Your task to perform on an android device: What's the weather? Image 0: 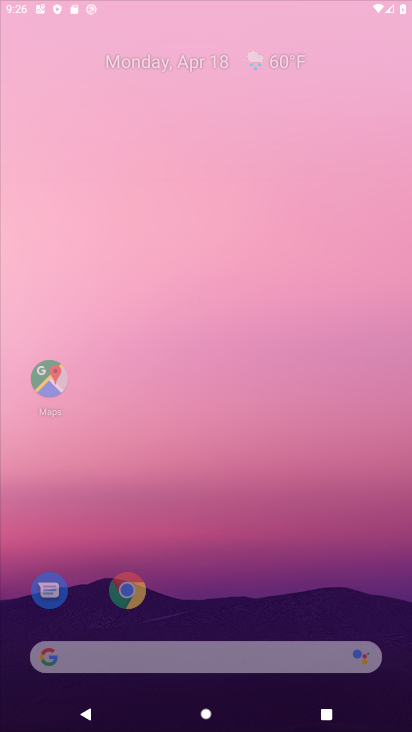
Step 0: drag from (288, 317) to (281, 174)
Your task to perform on an android device: What's the weather? Image 1: 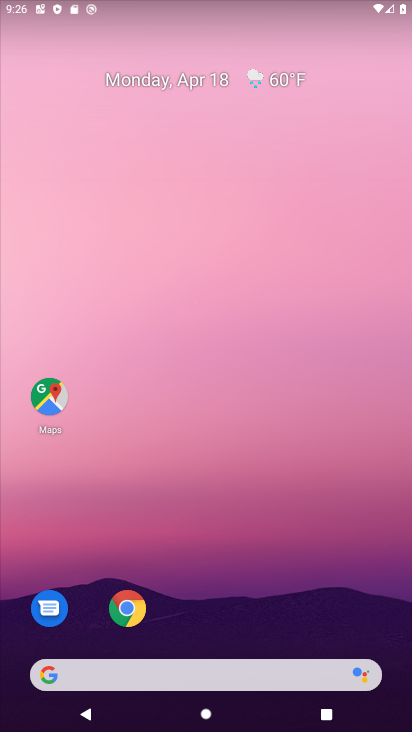
Step 1: drag from (191, 575) to (251, 0)
Your task to perform on an android device: What's the weather? Image 2: 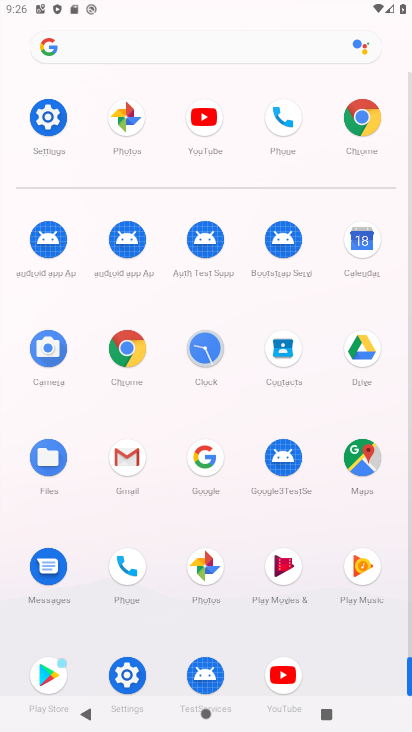
Step 2: click (120, 339)
Your task to perform on an android device: What's the weather? Image 3: 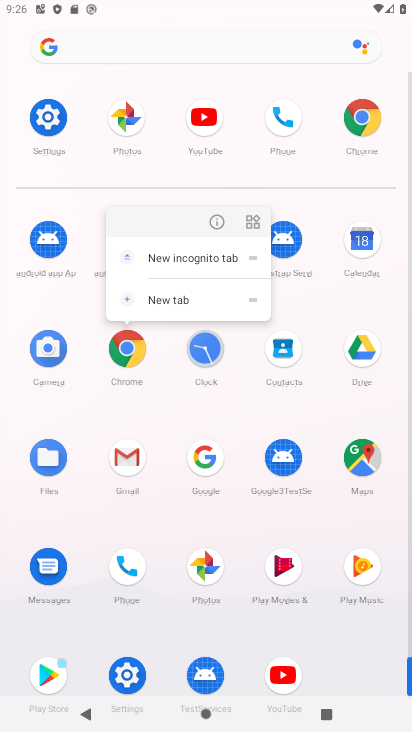
Step 3: click (214, 212)
Your task to perform on an android device: What's the weather? Image 4: 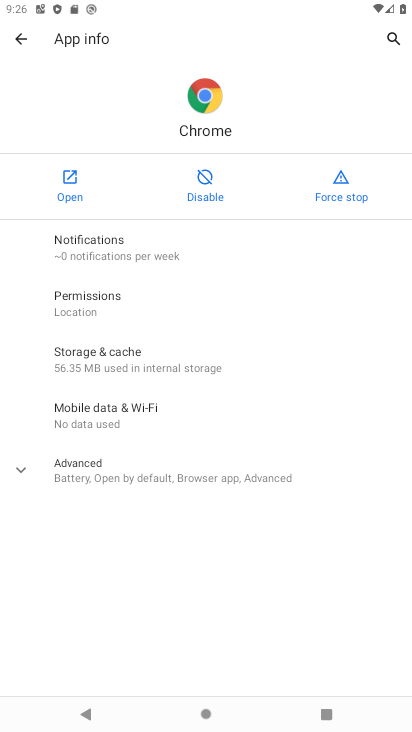
Step 4: click (83, 172)
Your task to perform on an android device: What's the weather? Image 5: 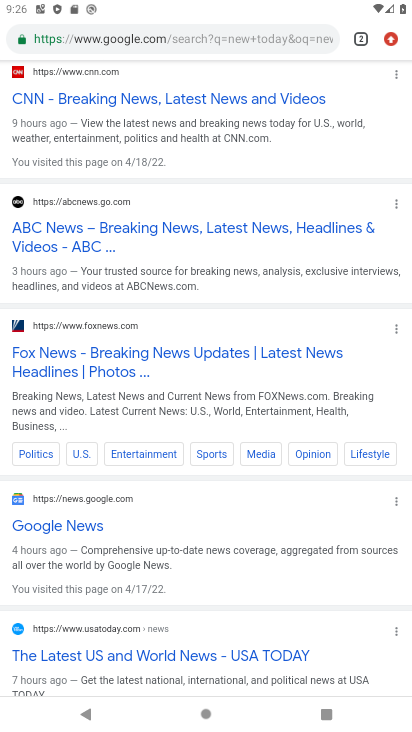
Step 5: drag from (167, 118) to (261, 480)
Your task to perform on an android device: What's the weather? Image 6: 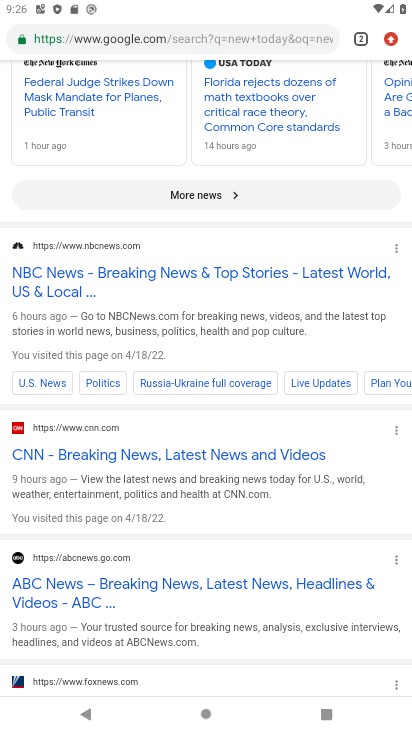
Step 6: click (147, 34)
Your task to perform on an android device: What's the weather? Image 7: 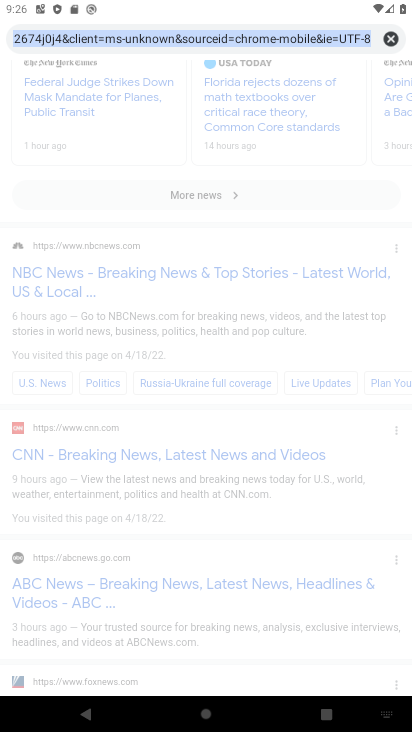
Step 7: click (392, 34)
Your task to perform on an android device: What's the weather? Image 8: 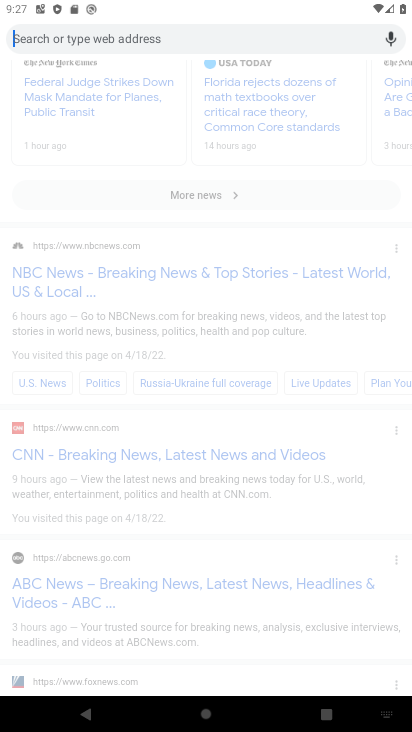
Step 8: type "weather"
Your task to perform on an android device: What's the weather? Image 9: 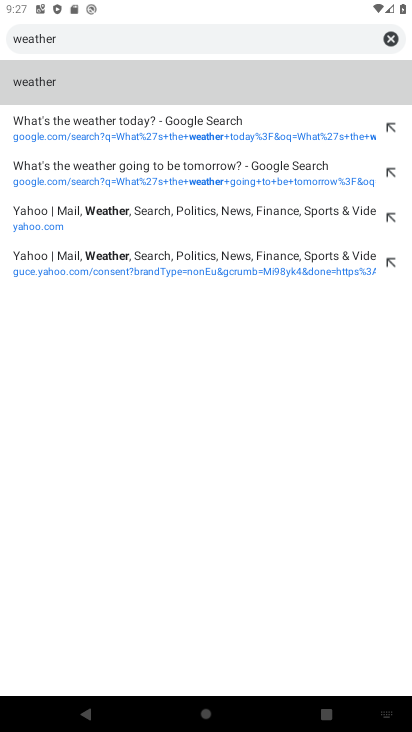
Step 9: click (61, 77)
Your task to perform on an android device: What's the weather? Image 10: 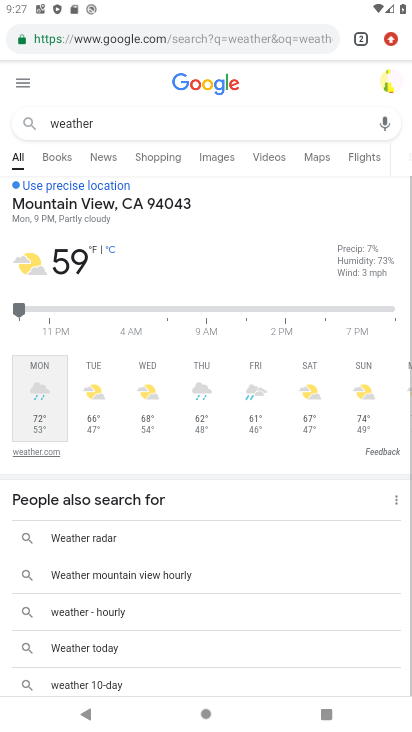
Step 10: task complete